Your task to perform on an android device: Open calendar and show me the first week of next month Image 0: 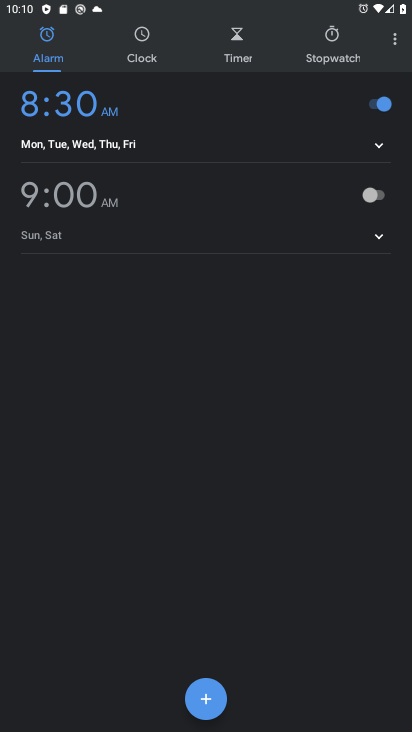
Step 0: press home button
Your task to perform on an android device: Open calendar and show me the first week of next month Image 1: 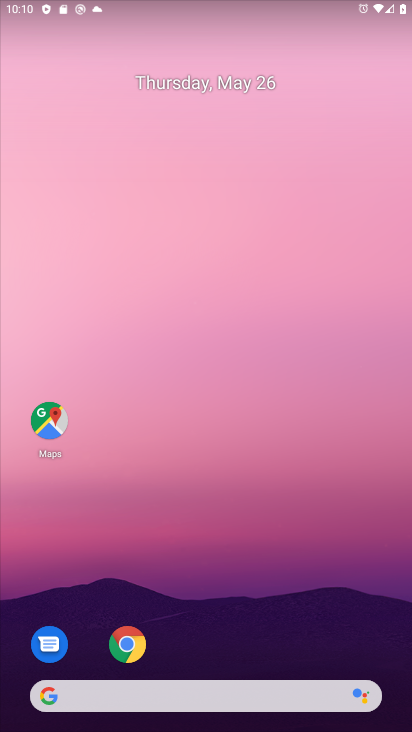
Step 1: drag from (210, 609) to (201, 184)
Your task to perform on an android device: Open calendar and show me the first week of next month Image 2: 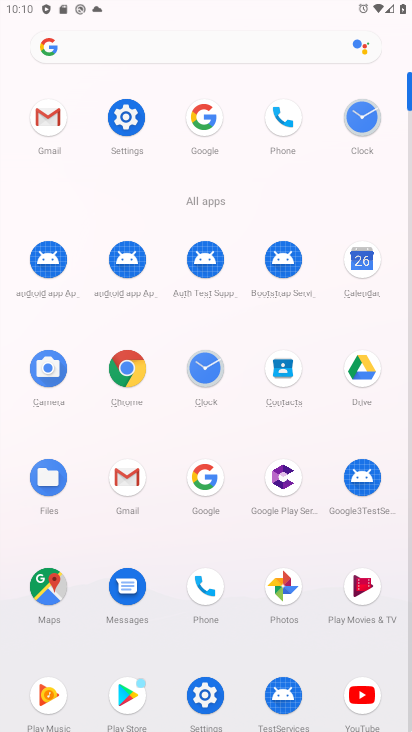
Step 2: click (350, 274)
Your task to perform on an android device: Open calendar and show me the first week of next month Image 3: 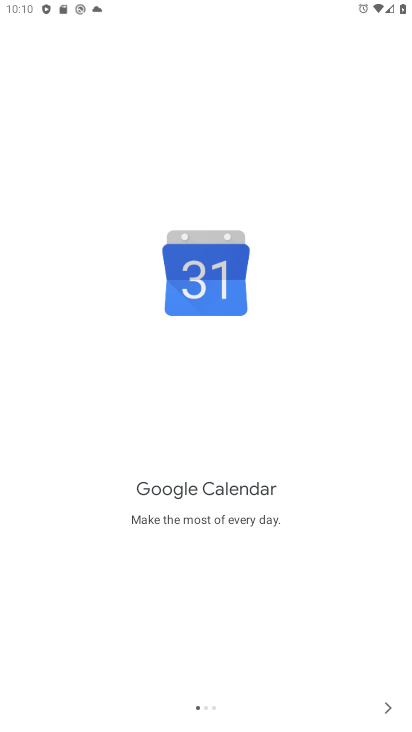
Step 3: click (384, 701)
Your task to perform on an android device: Open calendar and show me the first week of next month Image 4: 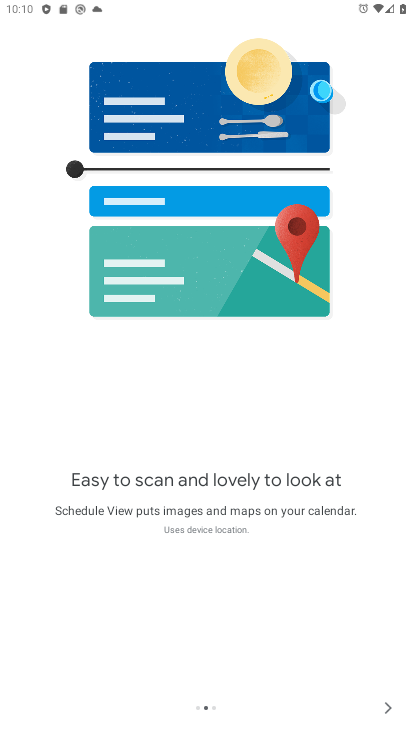
Step 4: click (390, 712)
Your task to perform on an android device: Open calendar and show me the first week of next month Image 5: 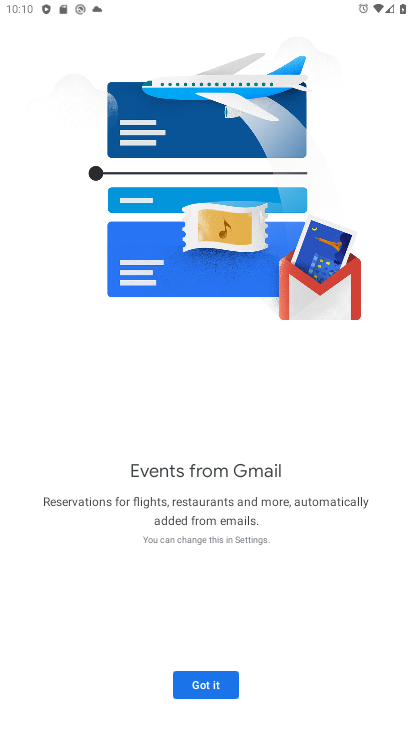
Step 5: click (178, 679)
Your task to perform on an android device: Open calendar and show me the first week of next month Image 6: 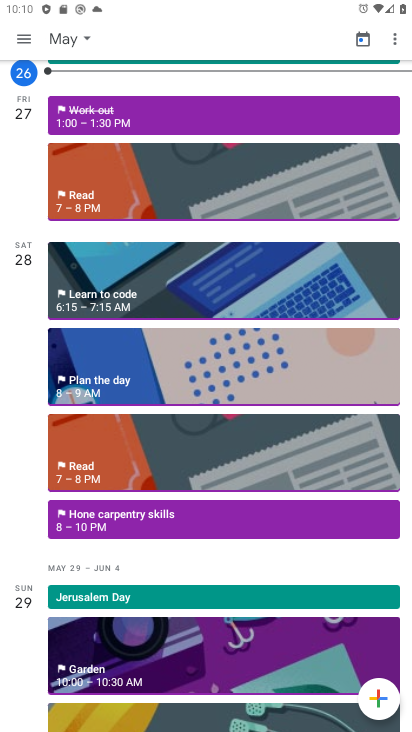
Step 6: click (84, 33)
Your task to perform on an android device: Open calendar and show me the first week of next month Image 7: 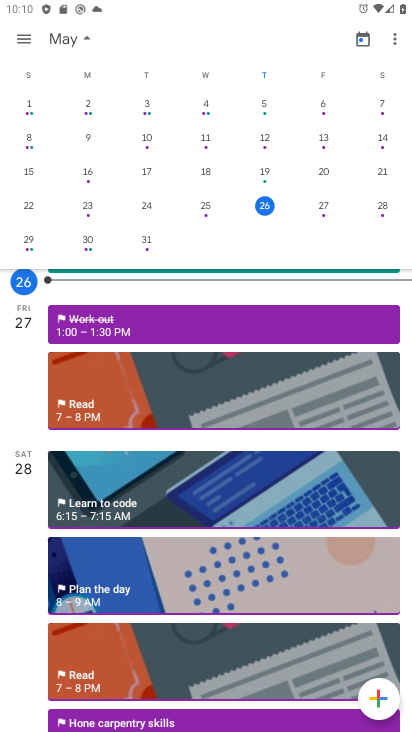
Step 7: drag from (286, 151) to (2, 169)
Your task to perform on an android device: Open calendar and show me the first week of next month Image 8: 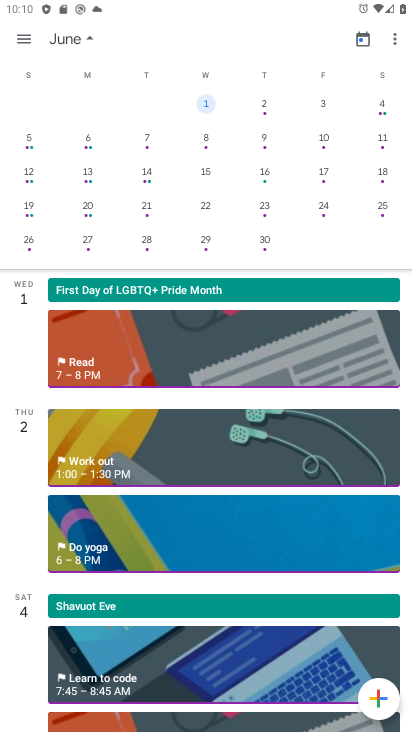
Step 8: click (199, 109)
Your task to perform on an android device: Open calendar and show me the first week of next month Image 9: 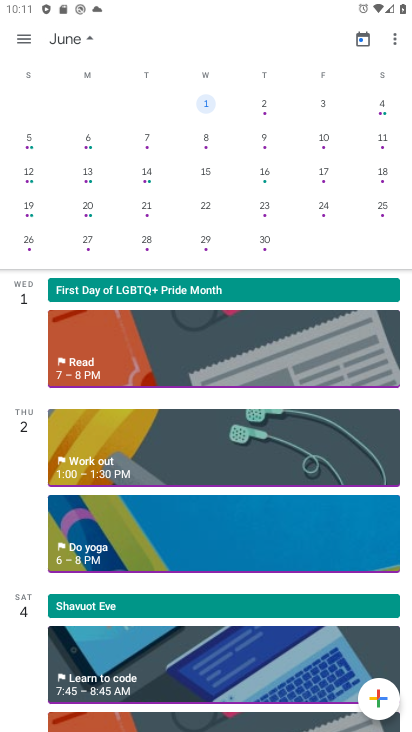
Step 9: task complete